Your task to perform on an android device: change timer sound Image 0: 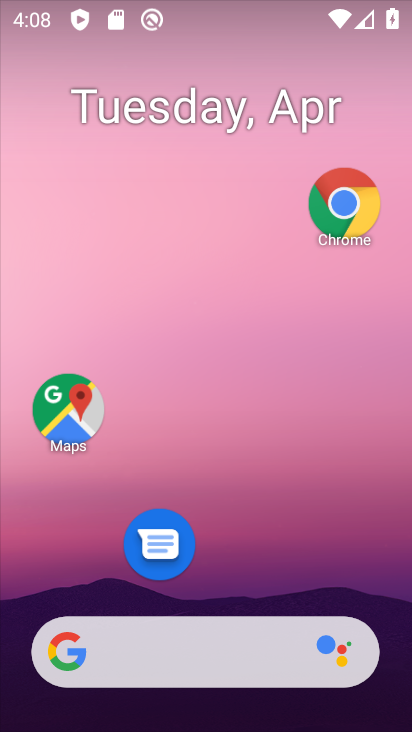
Step 0: drag from (239, 576) to (290, 97)
Your task to perform on an android device: change timer sound Image 1: 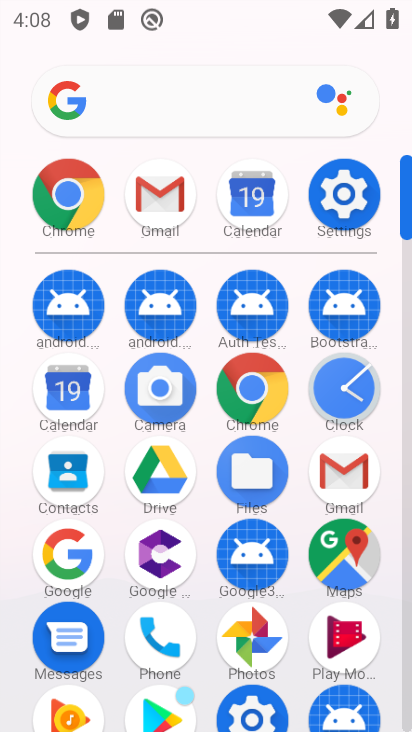
Step 1: click (359, 390)
Your task to perform on an android device: change timer sound Image 2: 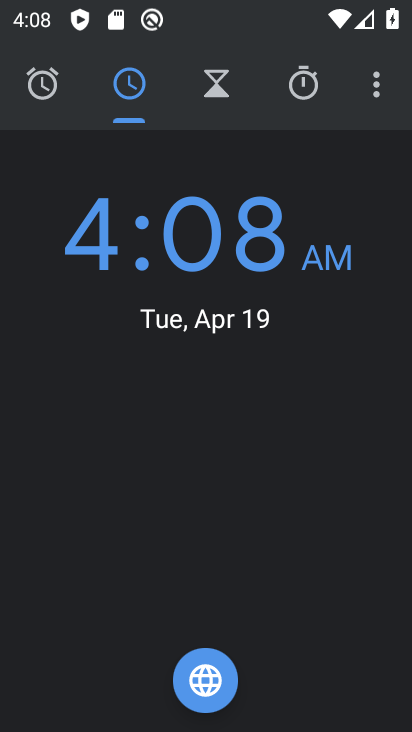
Step 2: click (367, 92)
Your task to perform on an android device: change timer sound Image 3: 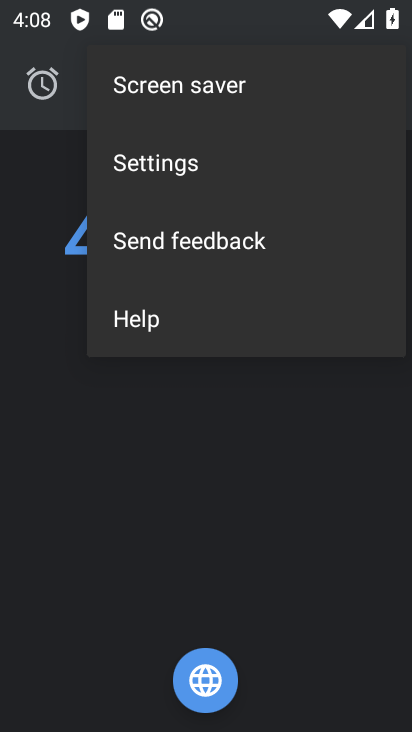
Step 3: click (165, 163)
Your task to perform on an android device: change timer sound Image 4: 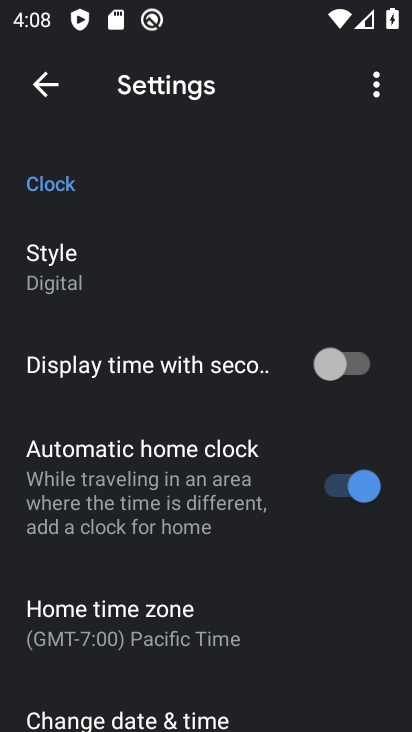
Step 4: drag from (149, 581) to (260, 154)
Your task to perform on an android device: change timer sound Image 5: 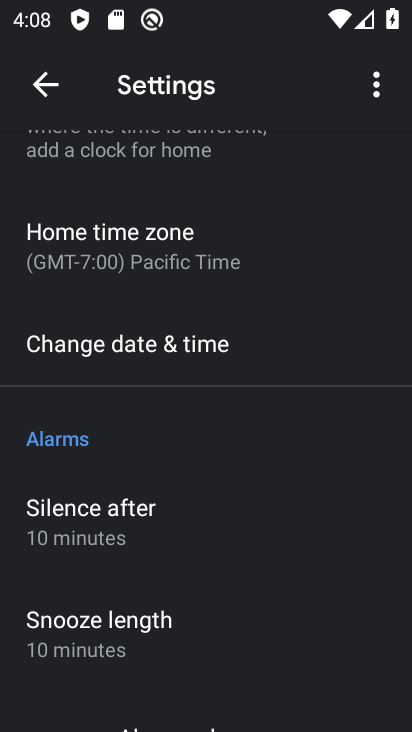
Step 5: drag from (116, 625) to (220, 196)
Your task to perform on an android device: change timer sound Image 6: 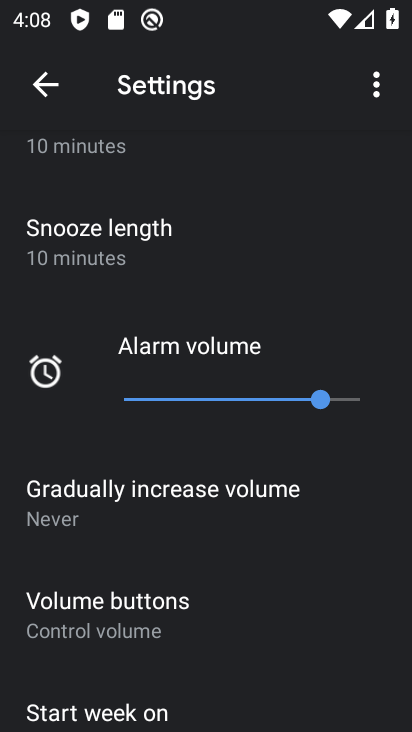
Step 6: drag from (169, 583) to (256, 232)
Your task to perform on an android device: change timer sound Image 7: 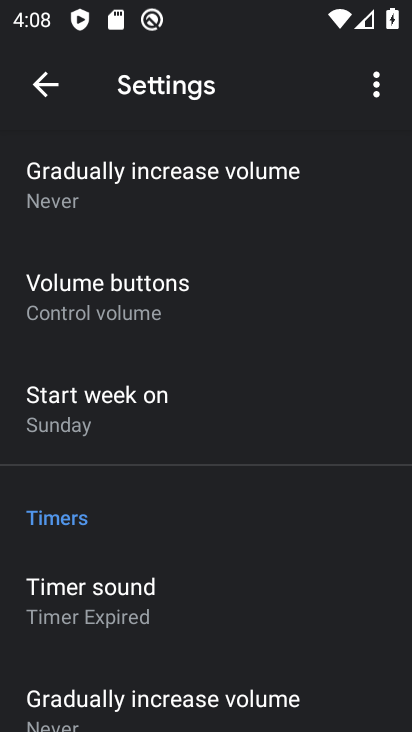
Step 7: click (158, 597)
Your task to perform on an android device: change timer sound Image 8: 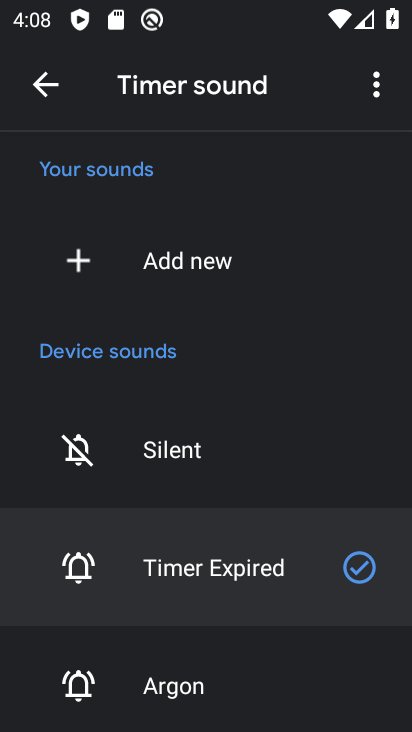
Step 8: drag from (124, 579) to (203, 201)
Your task to perform on an android device: change timer sound Image 9: 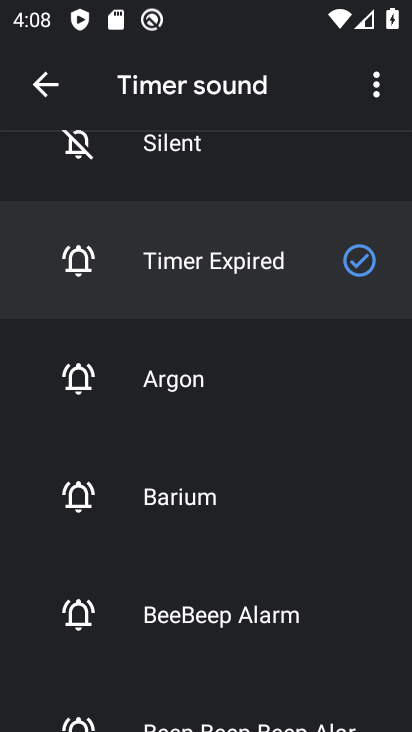
Step 9: click (177, 515)
Your task to perform on an android device: change timer sound Image 10: 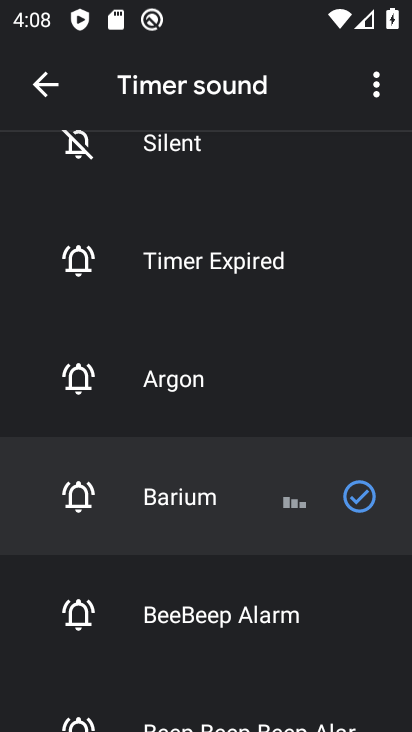
Step 10: task complete